Your task to perform on an android device: Open the stopwatch Image 0: 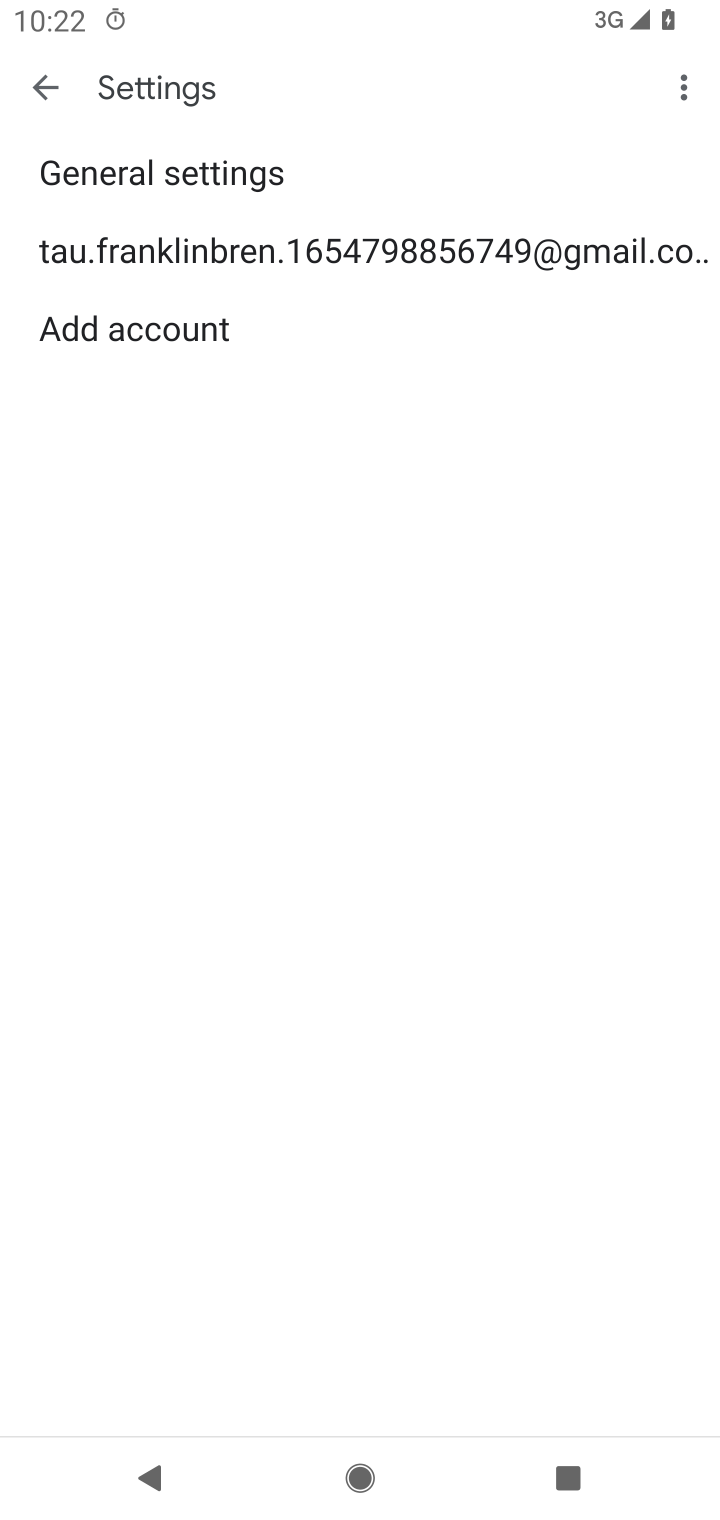
Step 0: press home button
Your task to perform on an android device: Open the stopwatch Image 1: 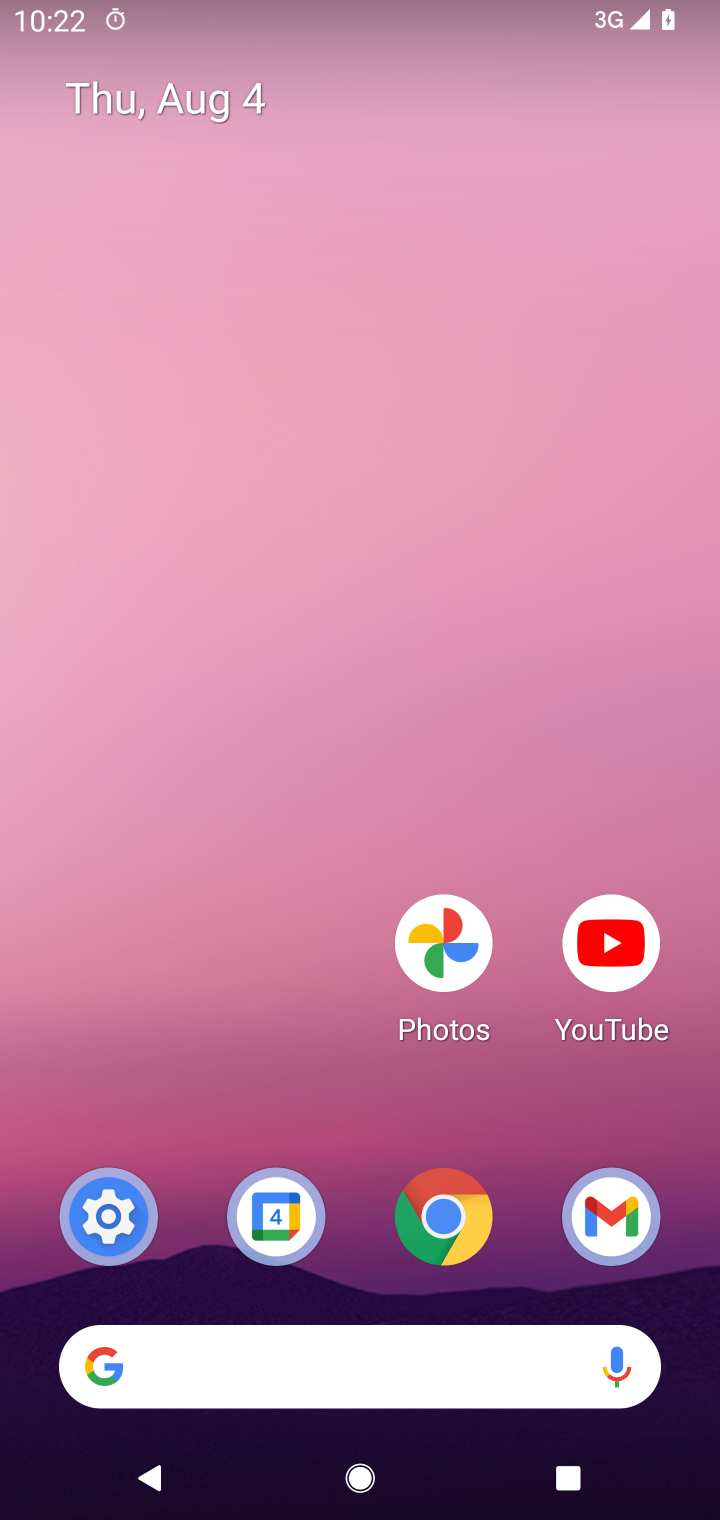
Step 1: drag from (364, 1289) to (394, 43)
Your task to perform on an android device: Open the stopwatch Image 2: 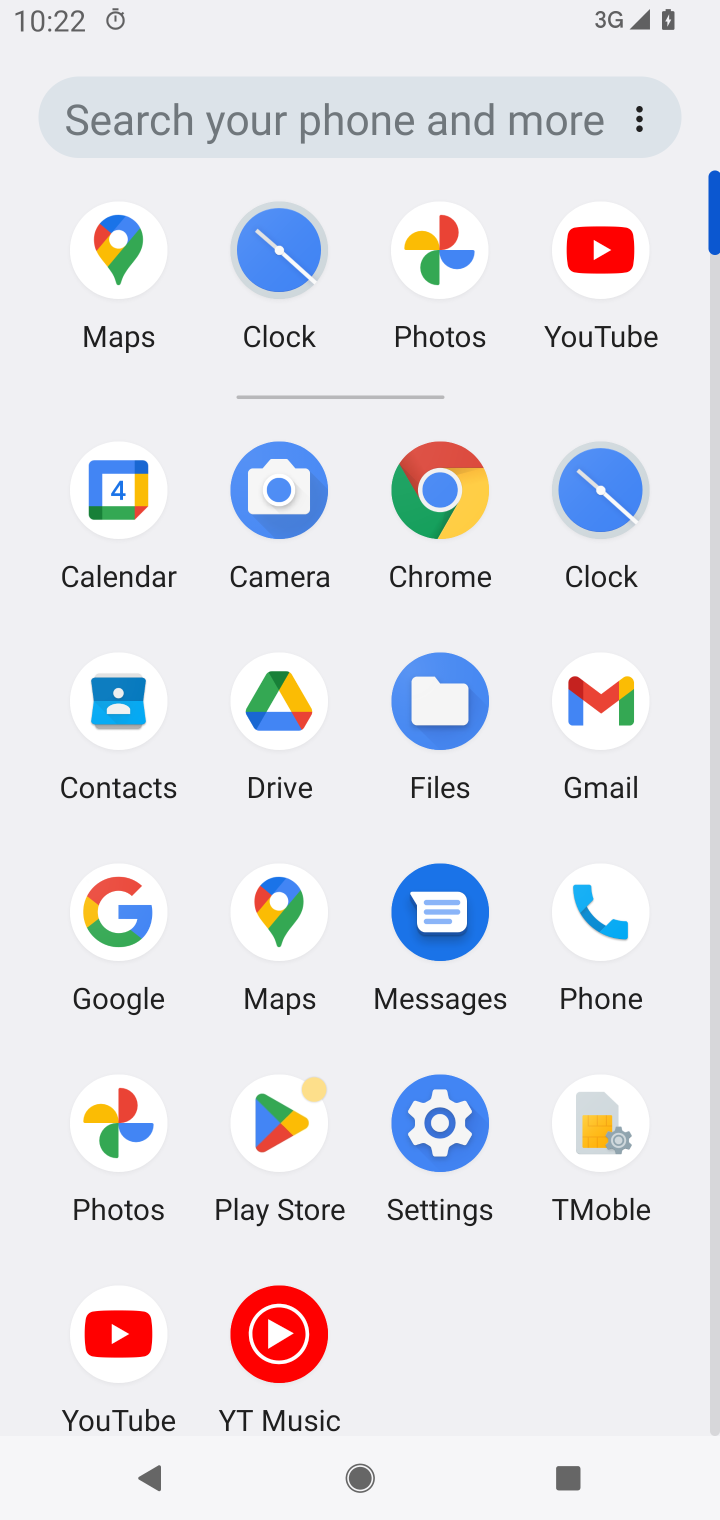
Step 2: click (259, 260)
Your task to perform on an android device: Open the stopwatch Image 3: 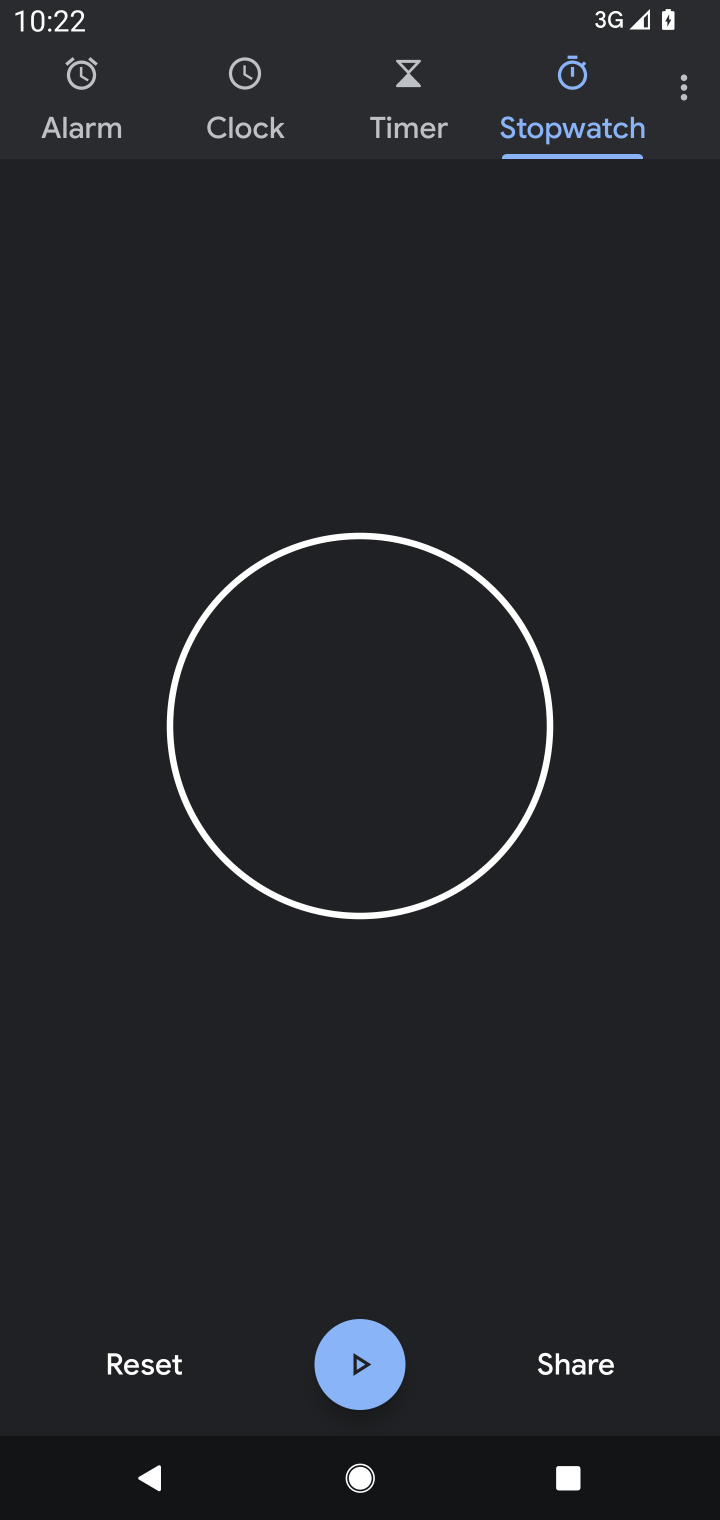
Step 3: task complete